Your task to perform on an android device: Search for Italian restaurants on Maps Image 0: 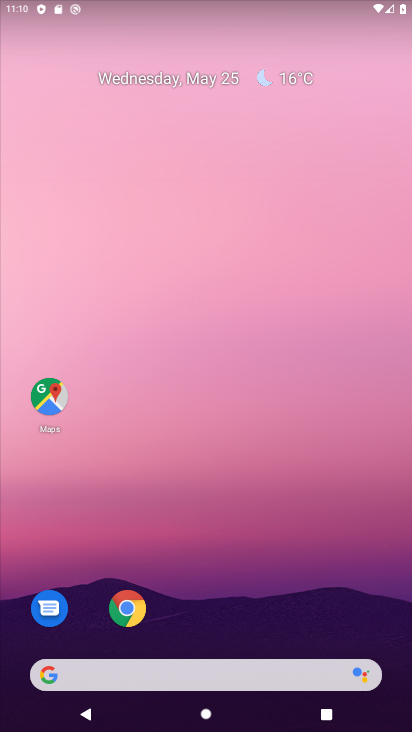
Step 0: click (34, 371)
Your task to perform on an android device: Search for Italian restaurants on Maps Image 1: 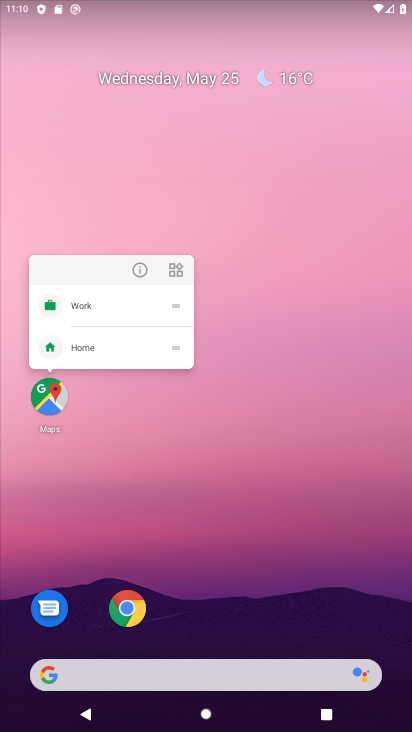
Step 1: click (41, 383)
Your task to perform on an android device: Search for Italian restaurants on Maps Image 2: 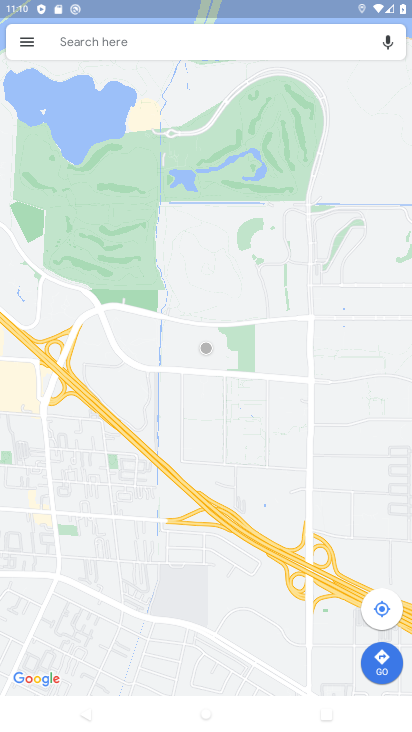
Step 2: click (134, 52)
Your task to perform on an android device: Search for Italian restaurants on Maps Image 3: 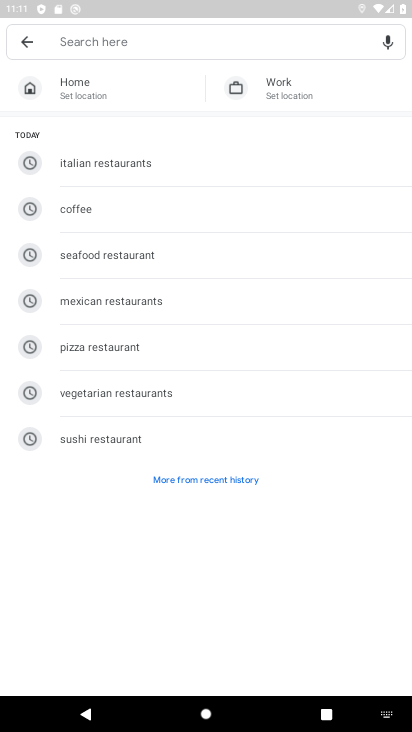
Step 3: type "italian"
Your task to perform on an android device: Search for Italian restaurants on Maps Image 4: 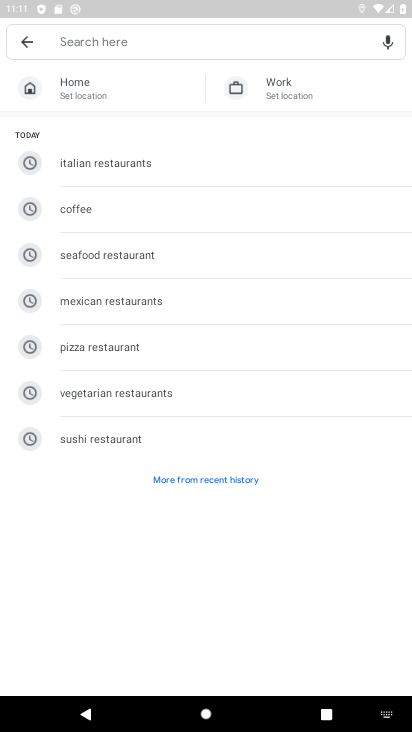
Step 4: click (121, 166)
Your task to perform on an android device: Search for Italian restaurants on Maps Image 5: 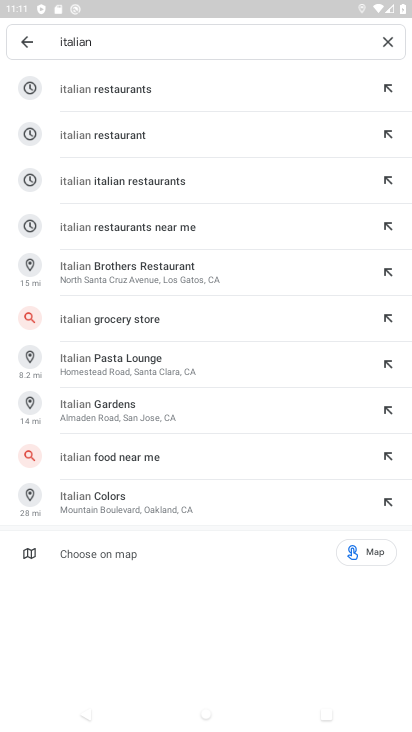
Step 5: click (159, 95)
Your task to perform on an android device: Search for Italian restaurants on Maps Image 6: 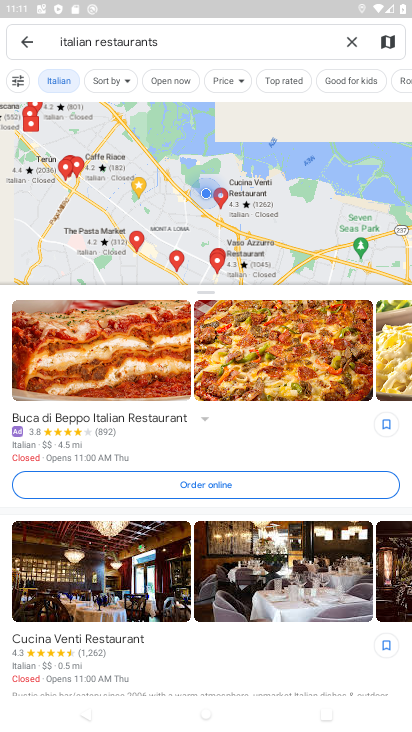
Step 6: task complete